Your task to perform on an android device: Search for dining sets on article.com Image 0: 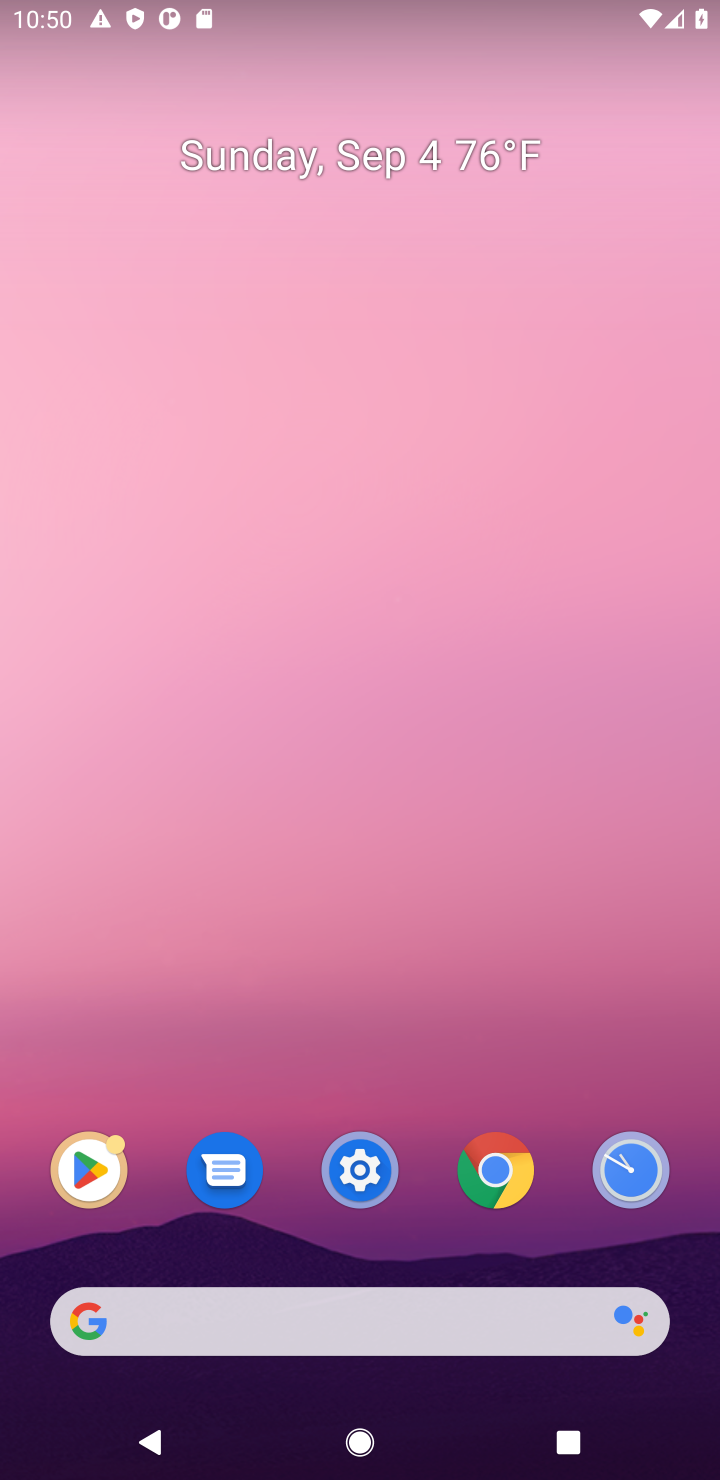
Step 0: click (379, 1297)
Your task to perform on an android device: Search for dining sets on article.com Image 1: 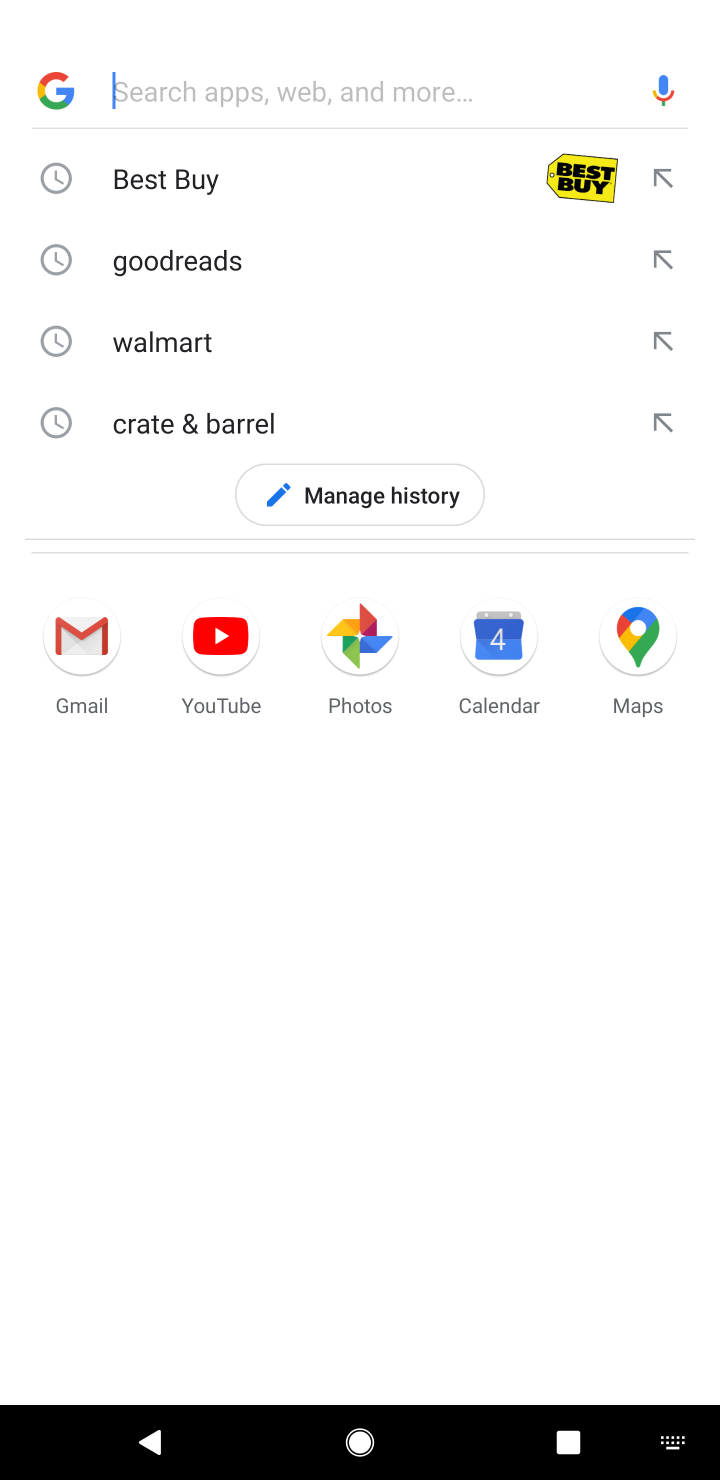
Step 1: type "article.com"
Your task to perform on an android device: Search for dining sets on article.com Image 2: 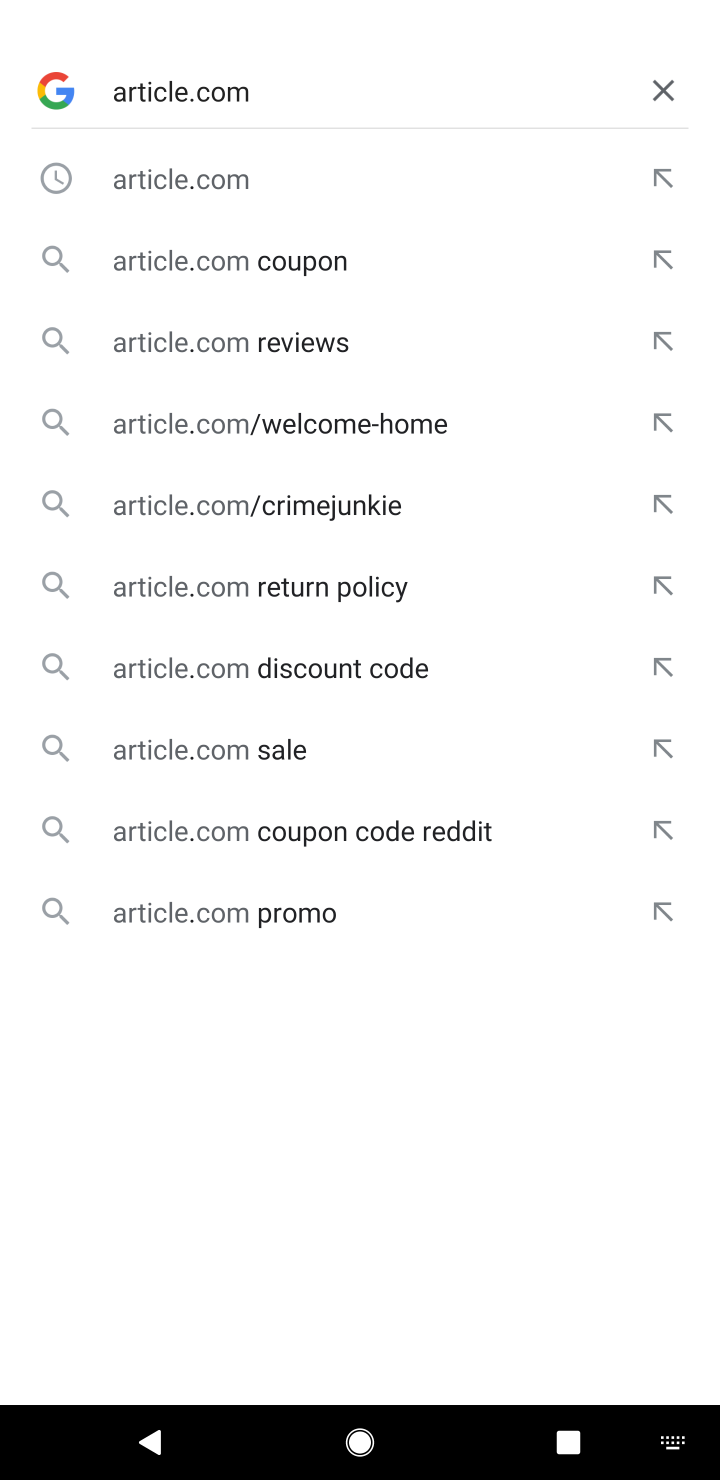
Step 2: click (168, 197)
Your task to perform on an android device: Search for dining sets on article.com Image 3: 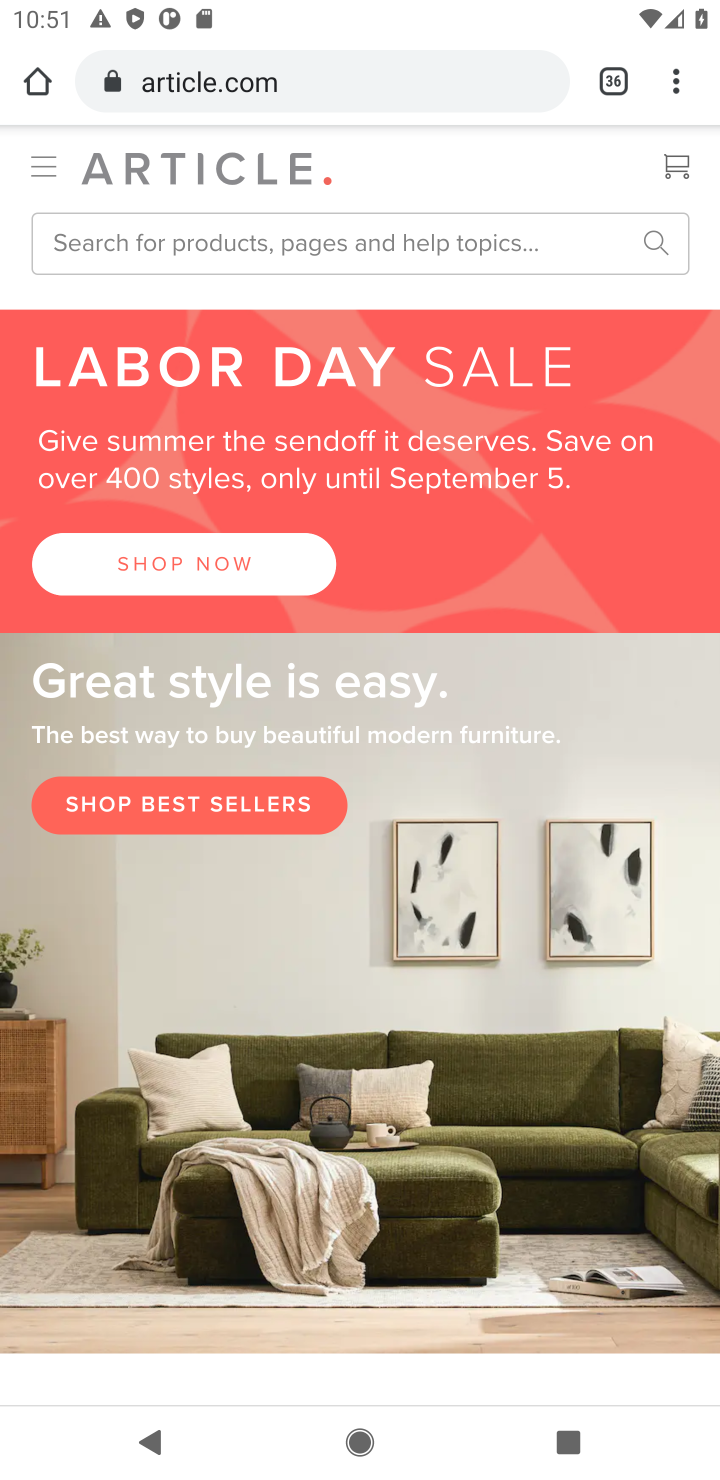
Step 3: click (301, 228)
Your task to perform on an android device: Search for dining sets on article.com Image 4: 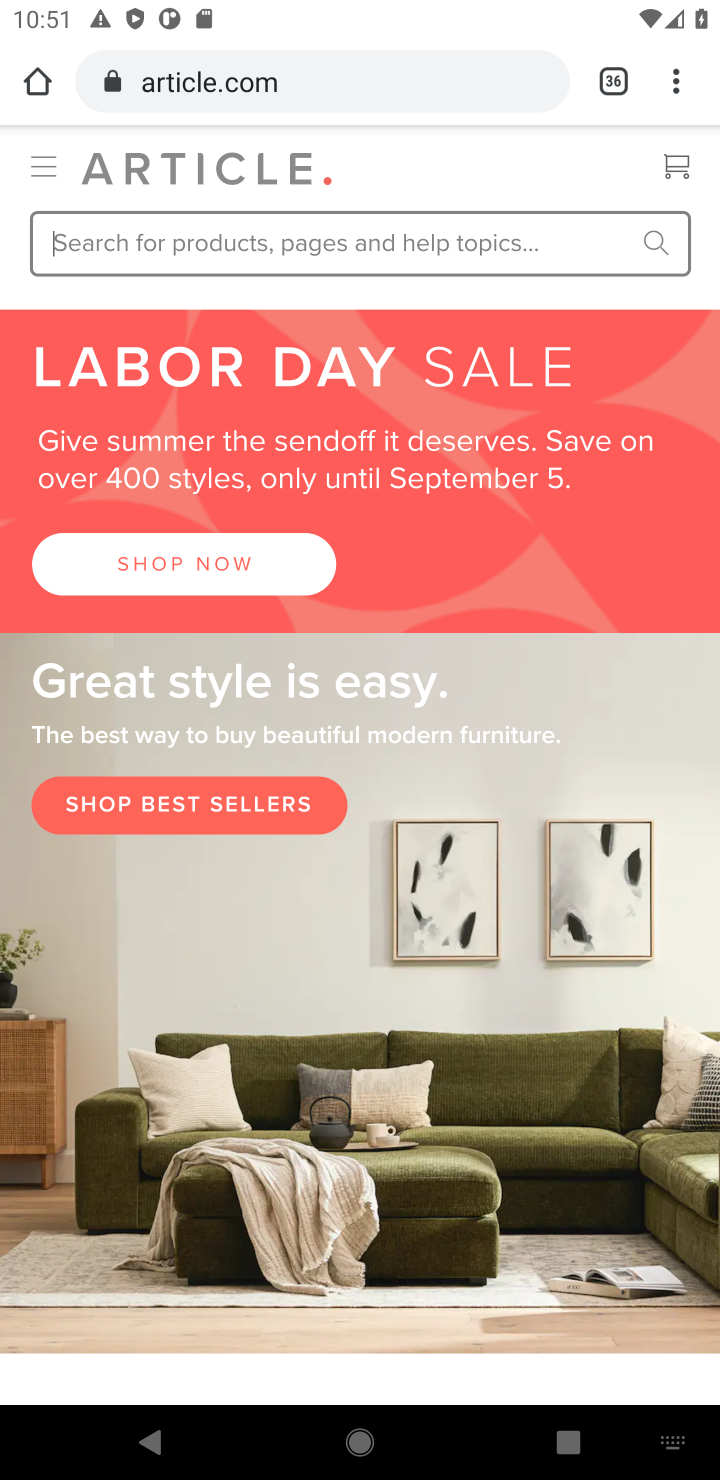
Step 4: type "dining sets"
Your task to perform on an android device: Search for dining sets on article.com Image 5: 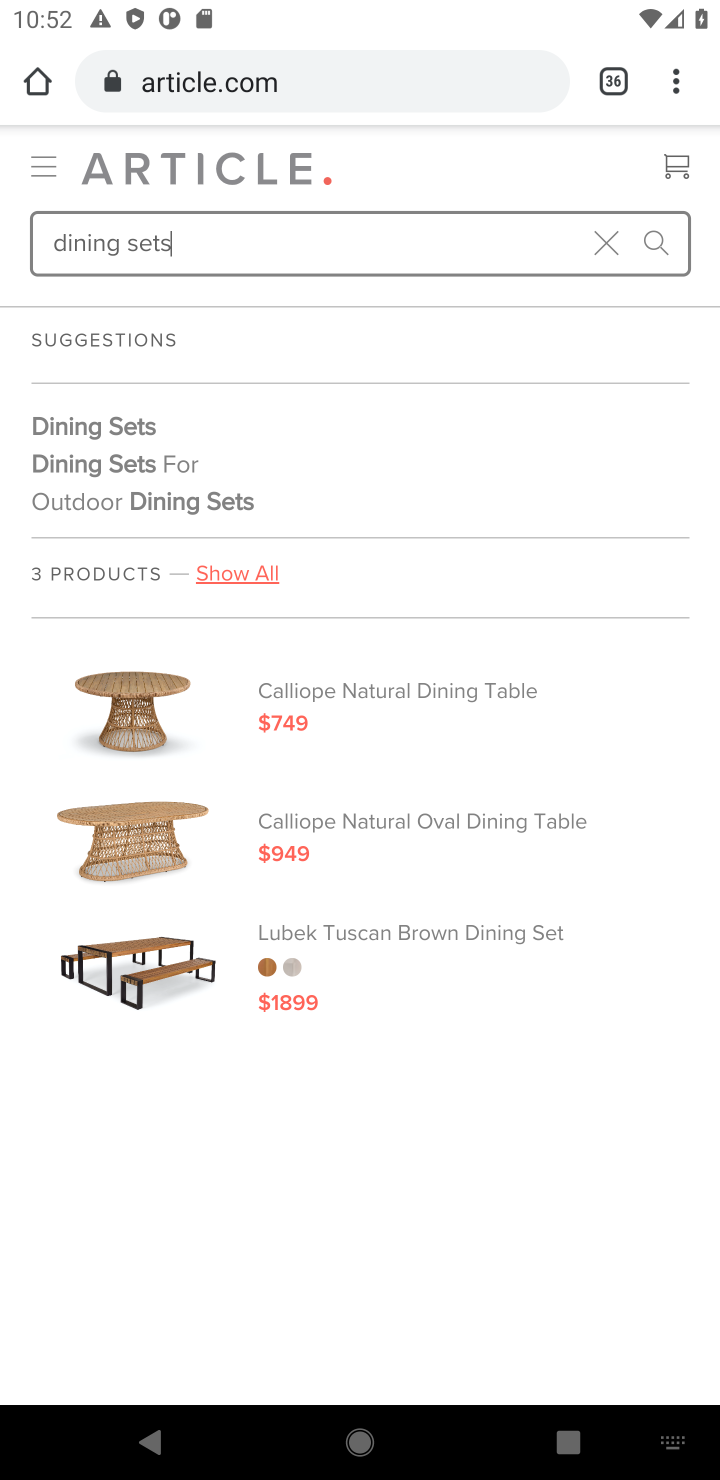
Step 5: click (652, 246)
Your task to perform on an android device: Search for dining sets on article.com Image 6: 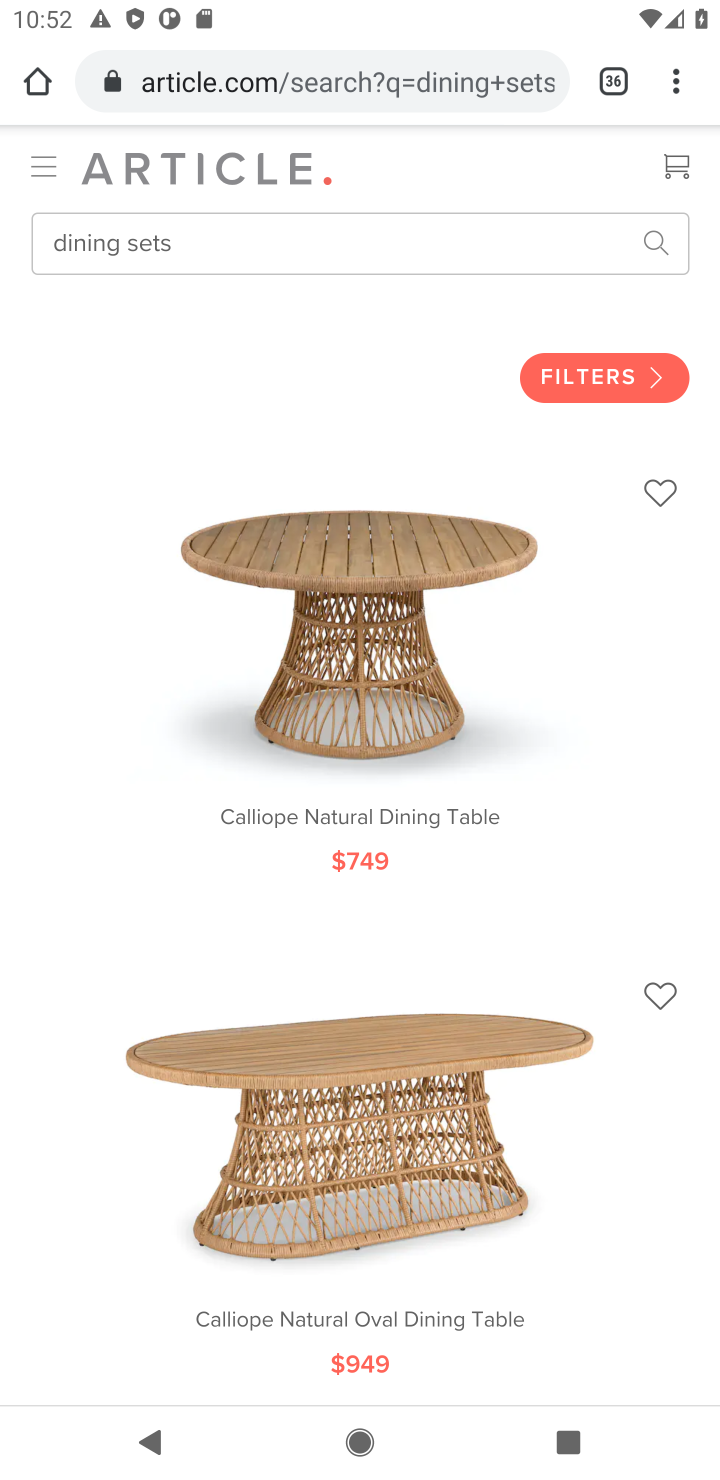
Step 6: task complete